Your task to perform on an android device: turn off sleep mode Image 0: 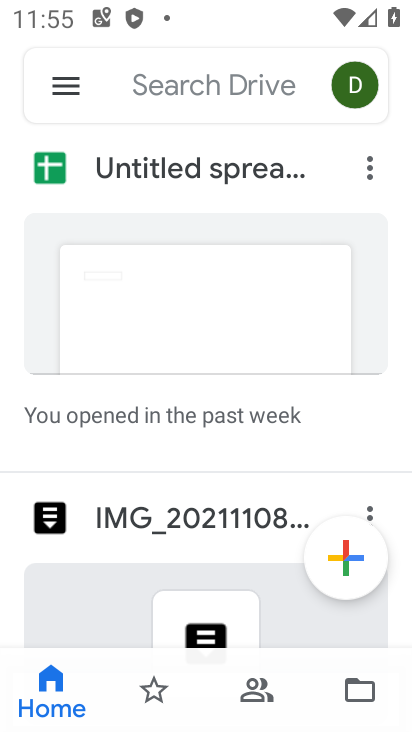
Step 0: press home button
Your task to perform on an android device: turn off sleep mode Image 1: 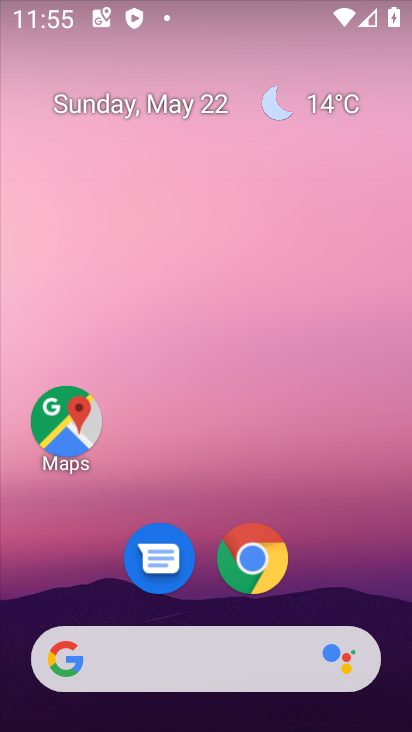
Step 1: drag from (326, 602) to (347, 6)
Your task to perform on an android device: turn off sleep mode Image 2: 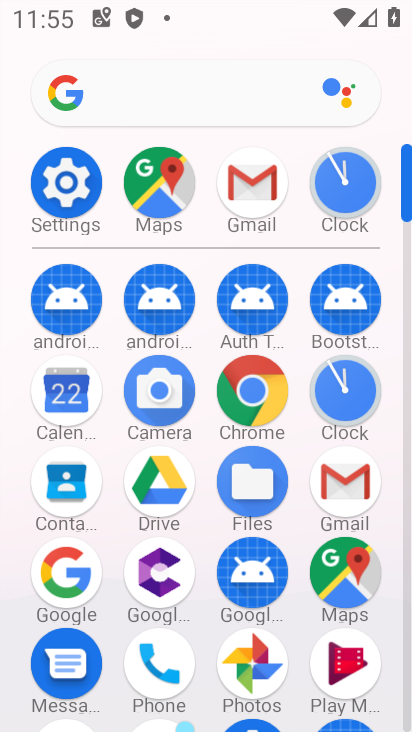
Step 2: click (68, 186)
Your task to perform on an android device: turn off sleep mode Image 3: 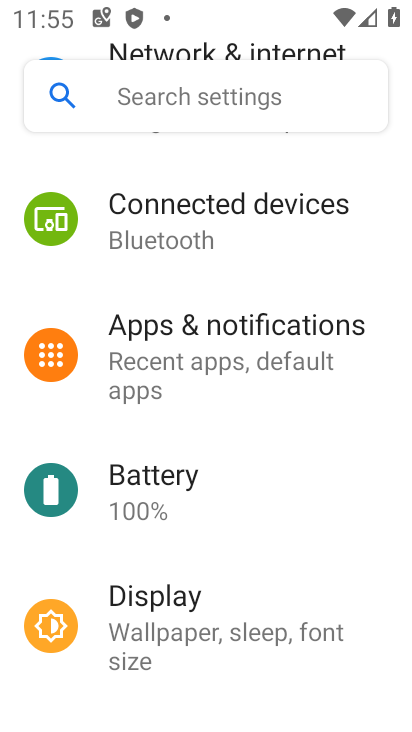
Step 3: click (149, 627)
Your task to perform on an android device: turn off sleep mode Image 4: 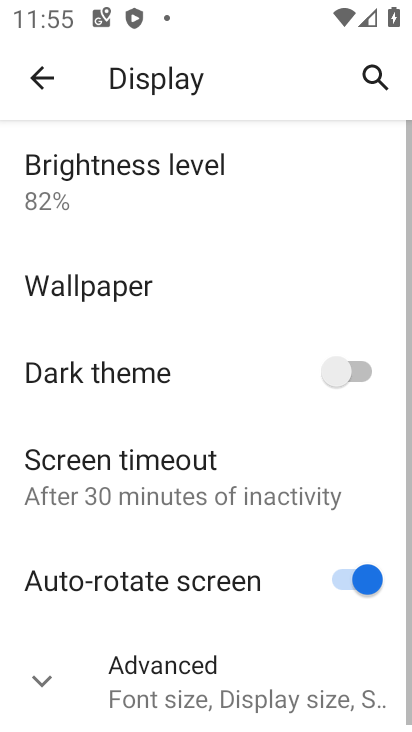
Step 4: drag from (165, 607) to (193, 274)
Your task to perform on an android device: turn off sleep mode Image 5: 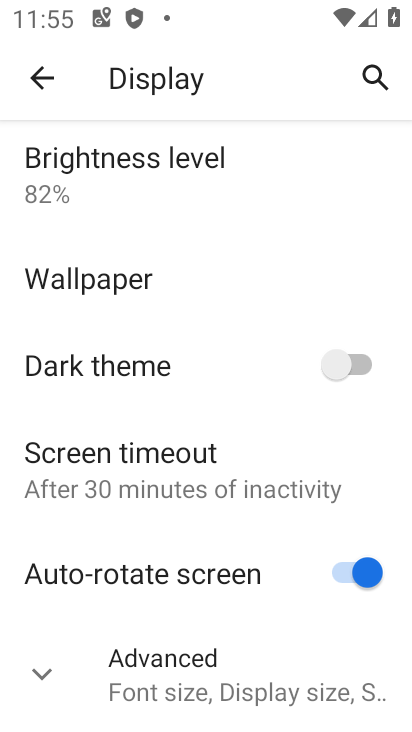
Step 5: click (39, 671)
Your task to perform on an android device: turn off sleep mode Image 6: 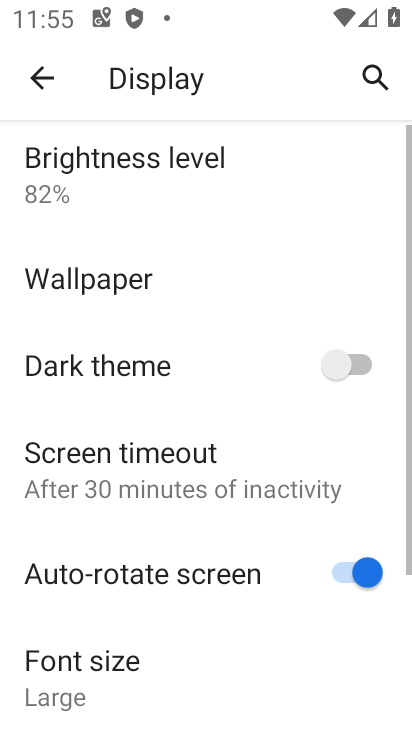
Step 6: task complete